Your task to perform on an android device: Is it going to rain today? Image 0: 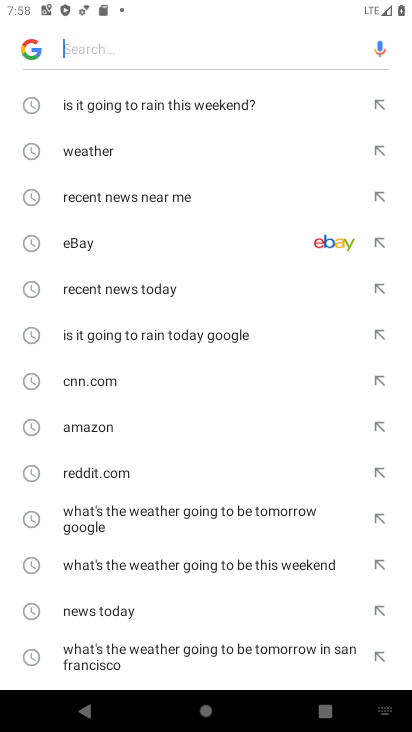
Step 0: press home button
Your task to perform on an android device: Is it going to rain today? Image 1: 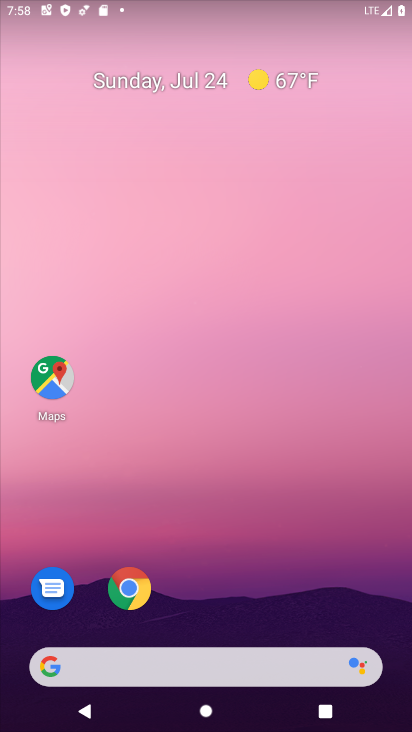
Step 1: click (149, 597)
Your task to perform on an android device: Is it going to rain today? Image 2: 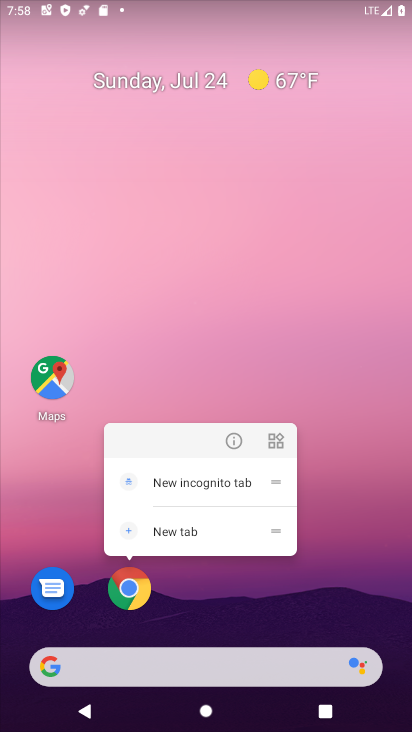
Step 2: click (137, 579)
Your task to perform on an android device: Is it going to rain today? Image 3: 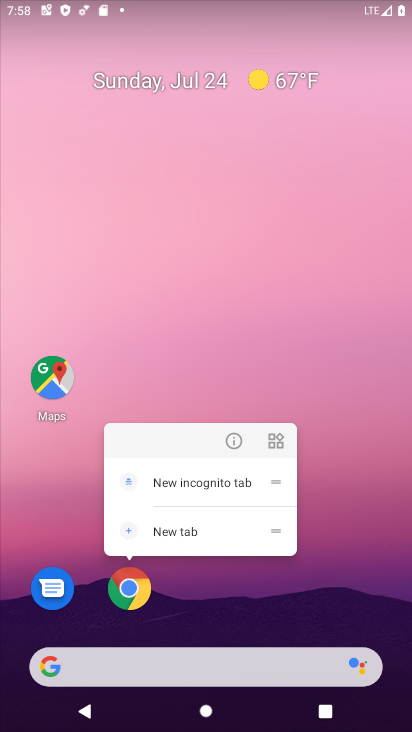
Step 3: click (124, 586)
Your task to perform on an android device: Is it going to rain today? Image 4: 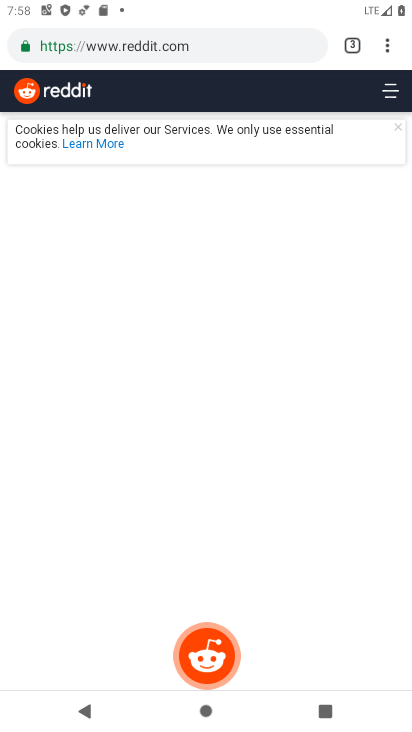
Step 4: click (394, 41)
Your task to perform on an android device: Is it going to rain today? Image 5: 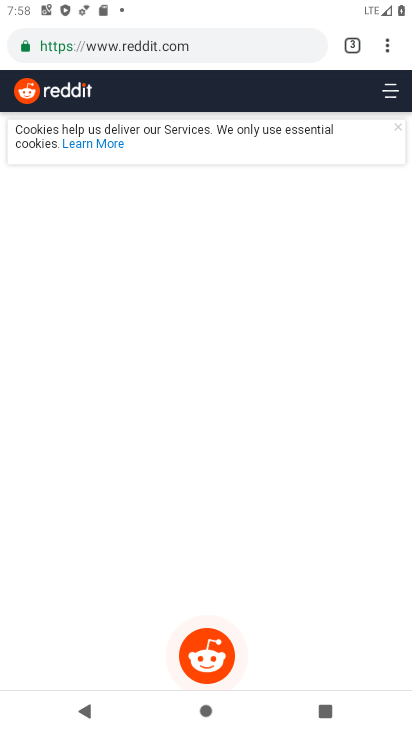
Step 5: click (387, 39)
Your task to perform on an android device: Is it going to rain today? Image 6: 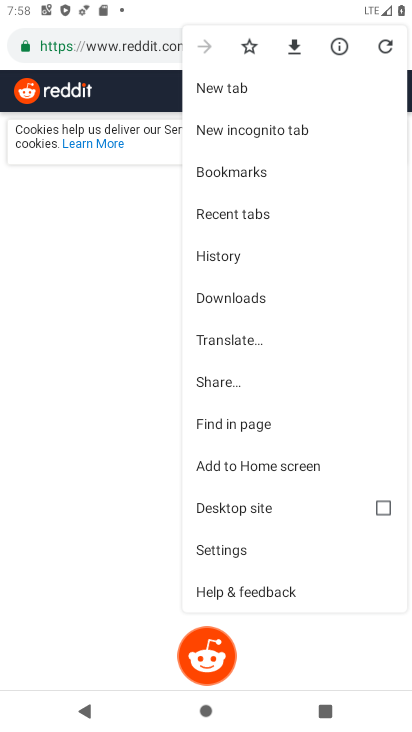
Step 6: click (201, 96)
Your task to perform on an android device: Is it going to rain today? Image 7: 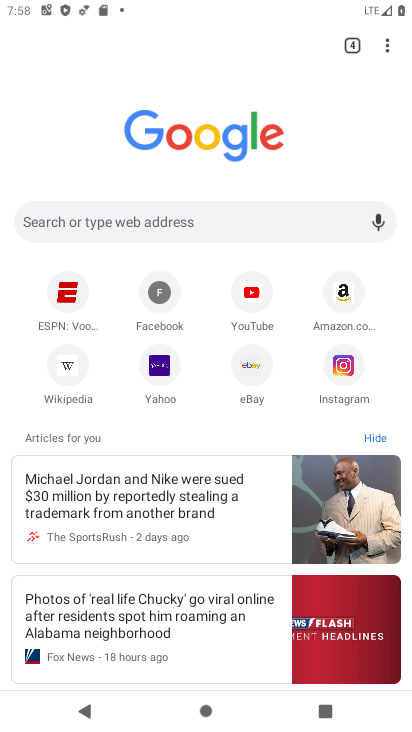
Step 7: click (210, 209)
Your task to perform on an android device: Is it going to rain today? Image 8: 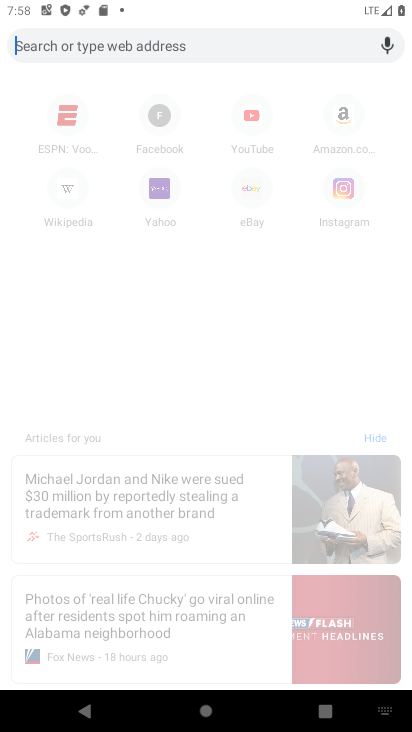
Step 8: type "Is it going to rain today "
Your task to perform on an android device: Is it going to rain today? Image 9: 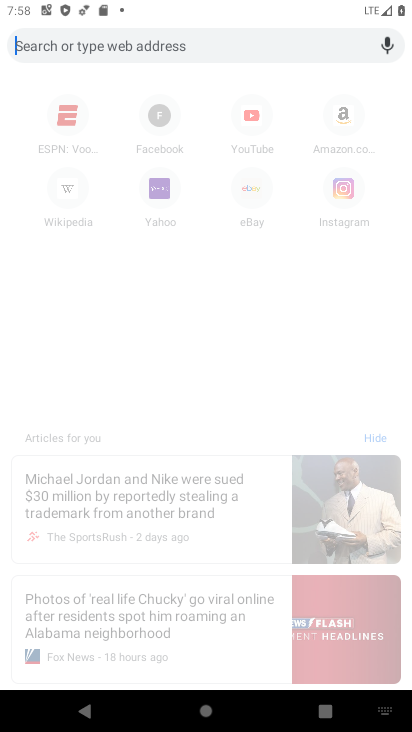
Step 9: click (136, 43)
Your task to perform on an android device: Is it going to rain today? Image 10: 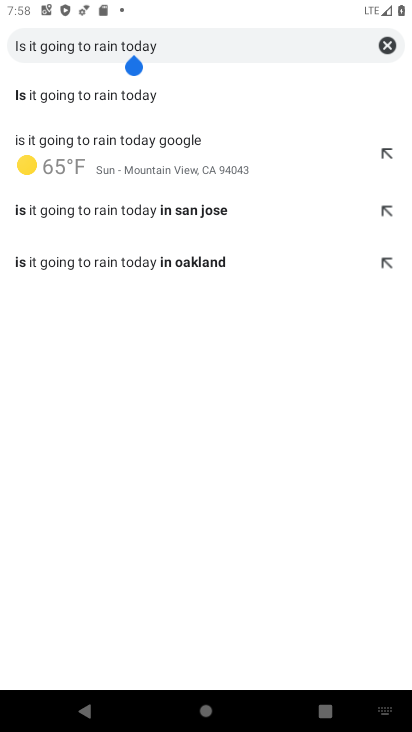
Step 10: click (148, 96)
Your task to perform on an android device: Is it going to rain today? Image 11: 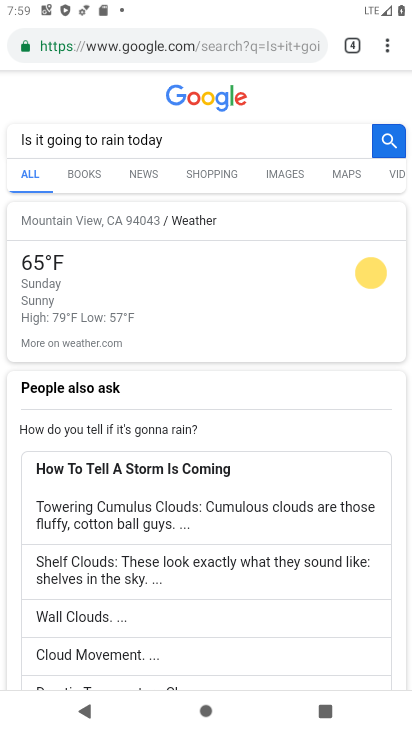
Step 11: task complete